Your task to perform on an android device: Go to settings Image 0: 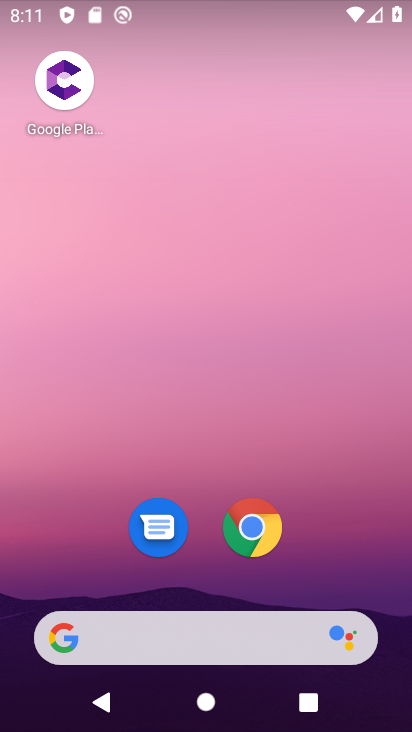
Step 0: drag from (204, 608) to (198, 98)
Your task to perform on an android device: Go to settings Image 1: 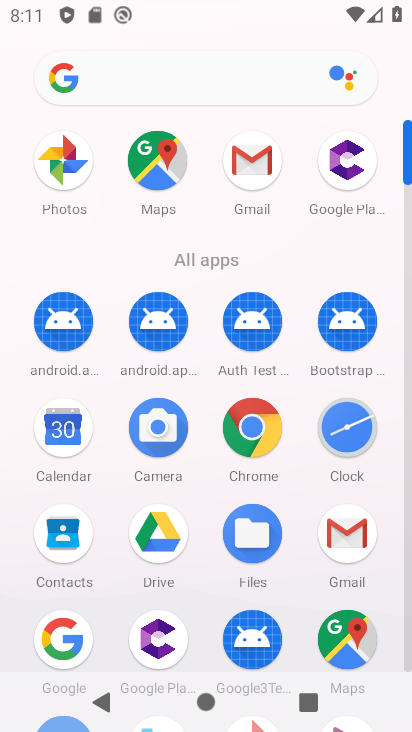
Step 1: drag from (100, 523) to (103, 217)
Your task to perform on an android device: Go to settings Image 2: 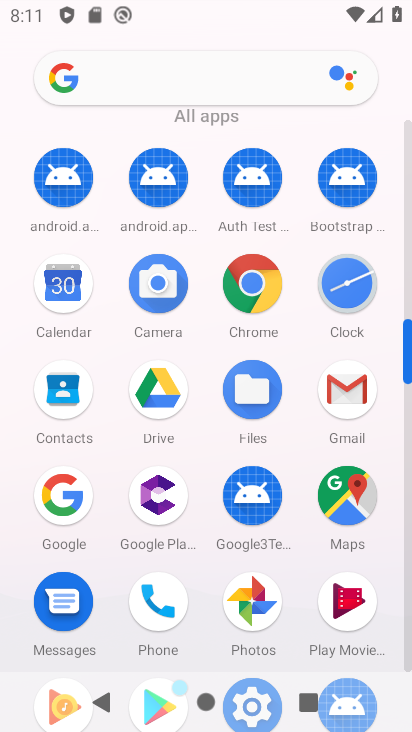
Step 2: drag from (200, 588) to (180, 317)
Your task to perform on an android device: Go to settings Image 3: 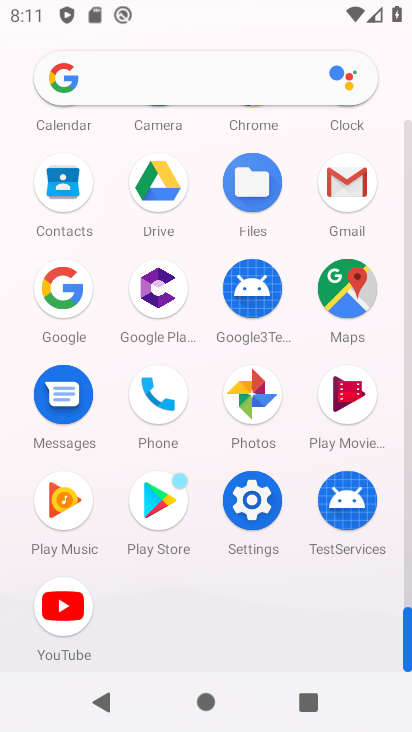
Step 3: click (249, 509)
Your task to perform on an android device: Go to settings Image 4: 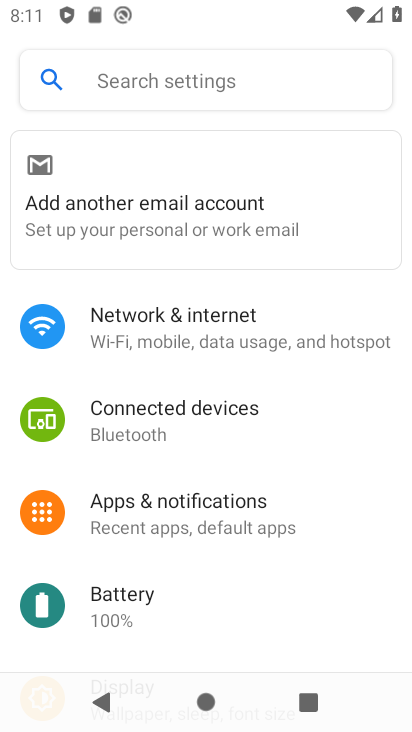
Step 4: task complete